Your task to perform on an android device: toggle data saver in the chrome app Image 0: 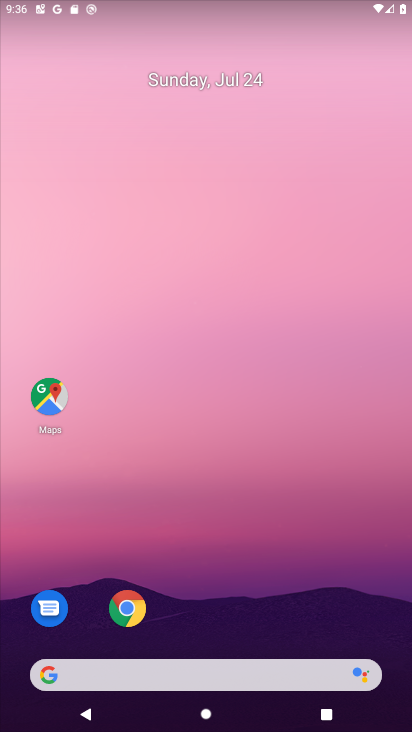
Step 0: click (125, 621)
Your task to perform on an android device: toggle data saver in the chrome app Image 1: 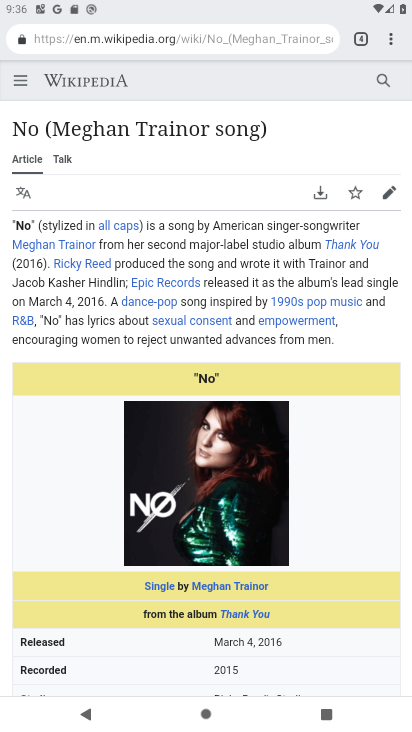
Step 1: click (395, 31)
Your task to perform on an android device: toggle data saver in the chrome app Image 2: 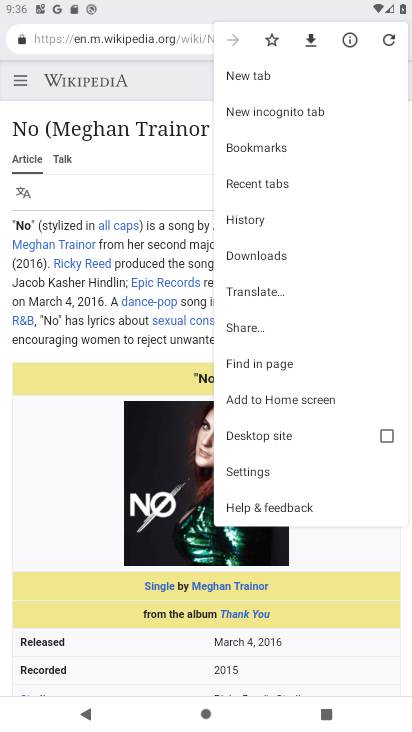
Step 2: click (266, 479)
Your task to perform on an android device: toggle data saver in the chrome app Image 3: 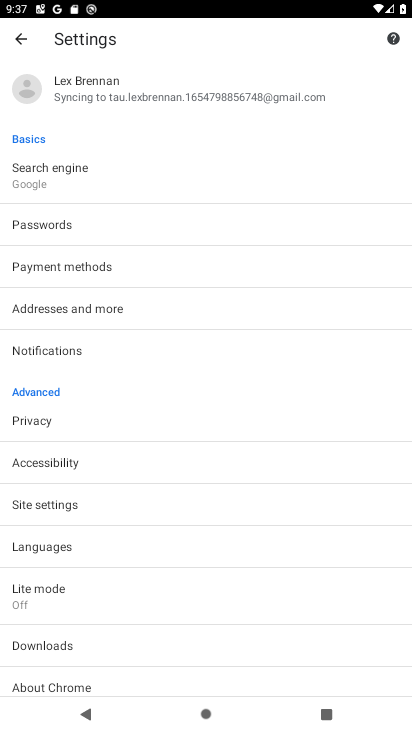
Step 3: click (128, 611)
Your task to perform on an android device: toggle data saver in the chrome app Image 4: 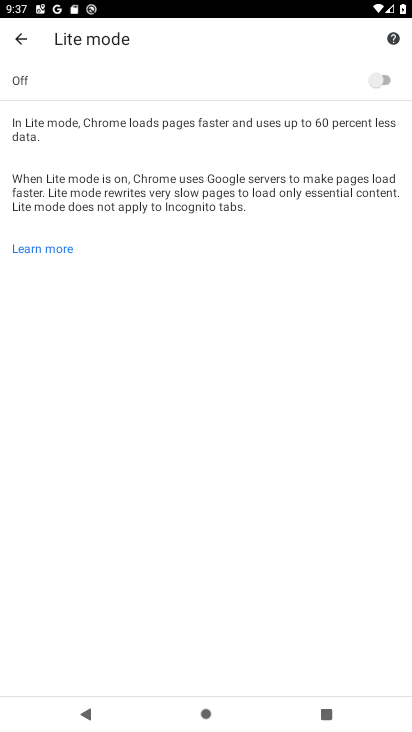
Step 4: click (382, 77)
Your task to perform on an android device: toggle data saver in the chrome app Image 5: 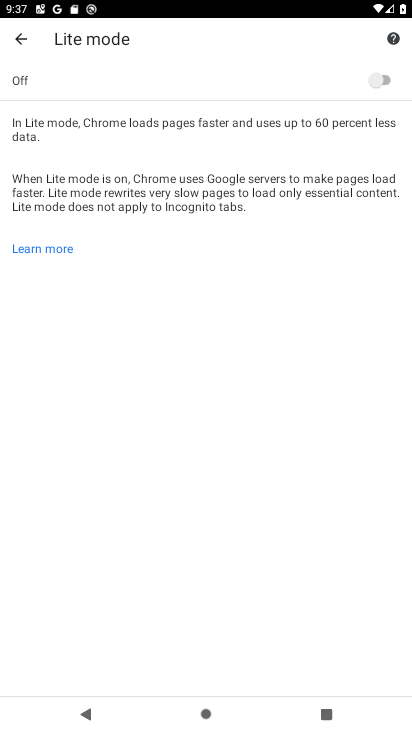
Step 5: click (382, 77)
Your task to perform on an android device: toggle data saver in the chrome app Image 6: 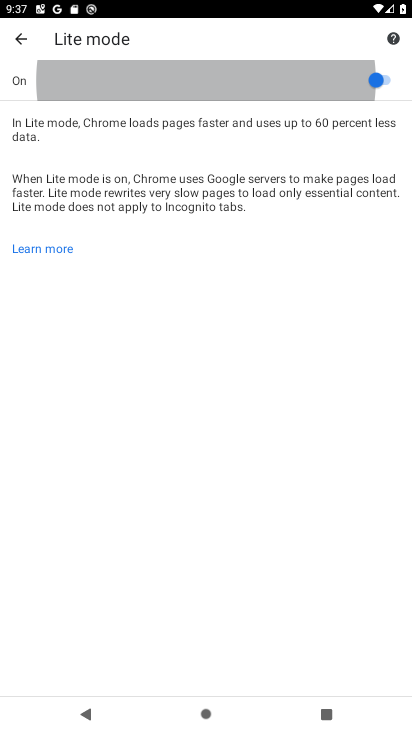
Step 6: click (382, 77)
Your task to perform on an android device: toggle data saver in the chrome app Image 7: 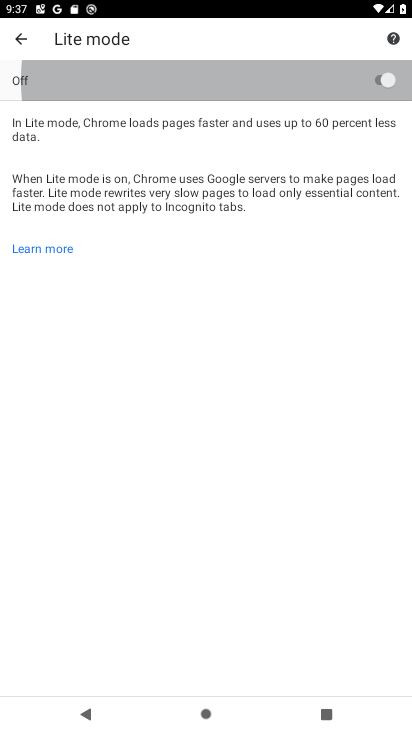
Step 7: click (382, 77)
Your task to perform on an android device: toggle data saver in the chrome app Image 8: 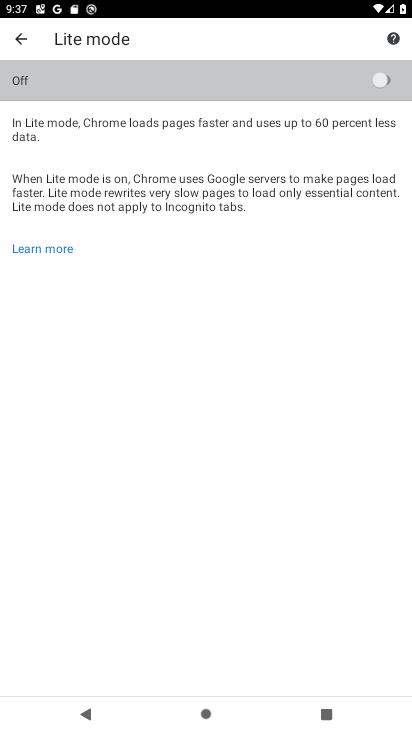
Step 8: click (382, 77)
Your task to perform on an android device: toggle data saver in the chrome app Image 9: 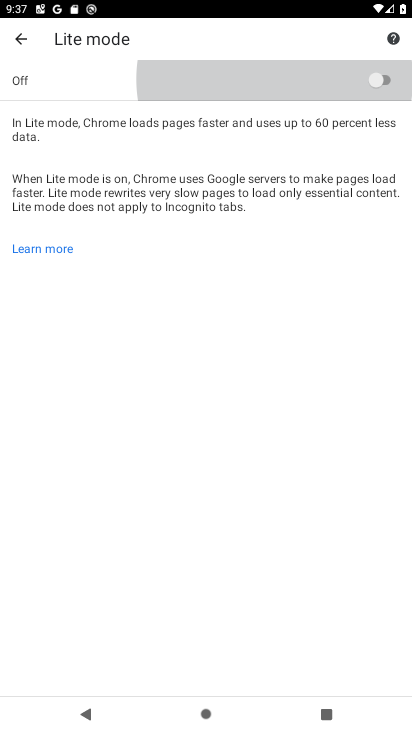
Step 9: click (382, 77)
Your task to perform on an android device: toggle data saver in the chrome app Image 10: 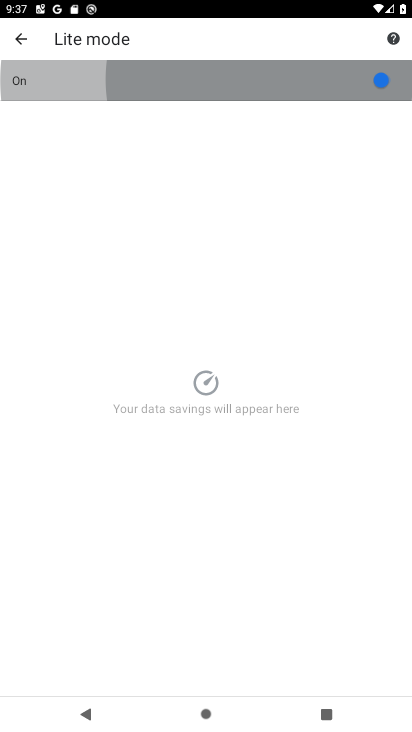
Step 10: click (382, 77)
Your task to perform on an android device: toggle data saver in the chrome app Image 11: 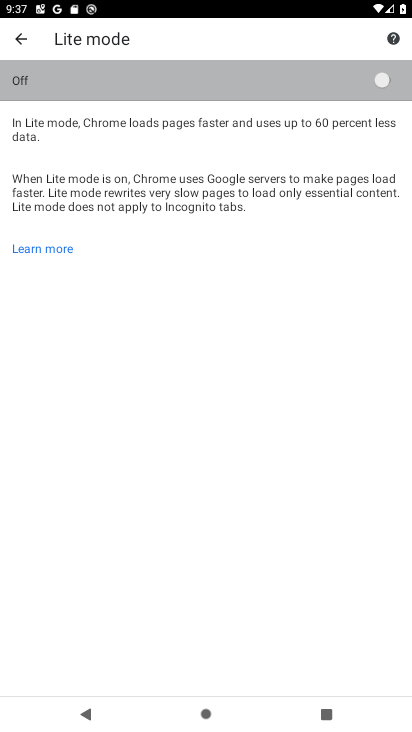
Step 11: click (382, 77)
Your task to perform on an android device: toggle data saver in the chrome app Image 12: 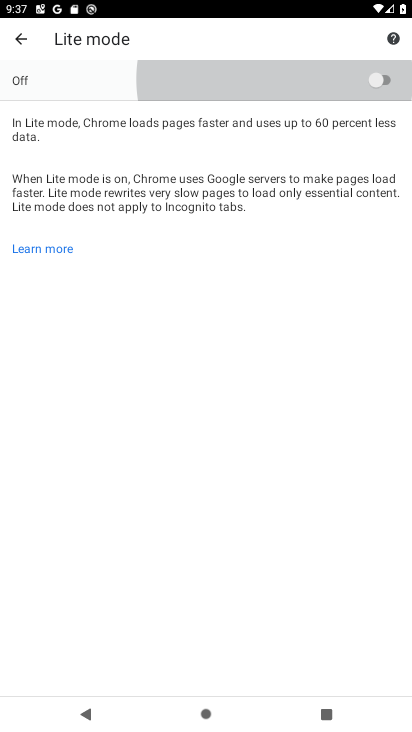
Step 12: click (382, 77)
Your task to perform on an android device: toggle data saver in the chrome app Image 13: 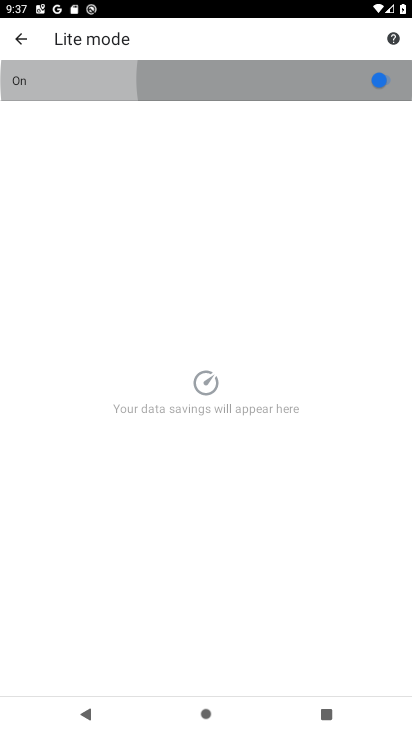
Step 13: click (382, 77)
Your task to perform on an android device: toggle data saver in the chrome app Image 14: 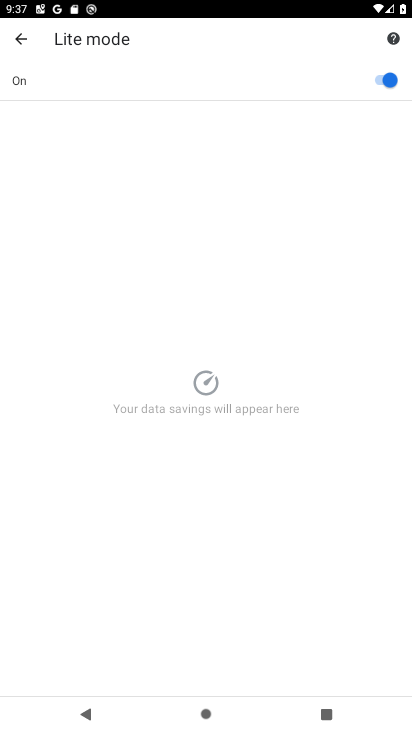
Step 14: click (377, 94)
Your task to perform on an android device: toggle data saver in the chrome app Image 15: 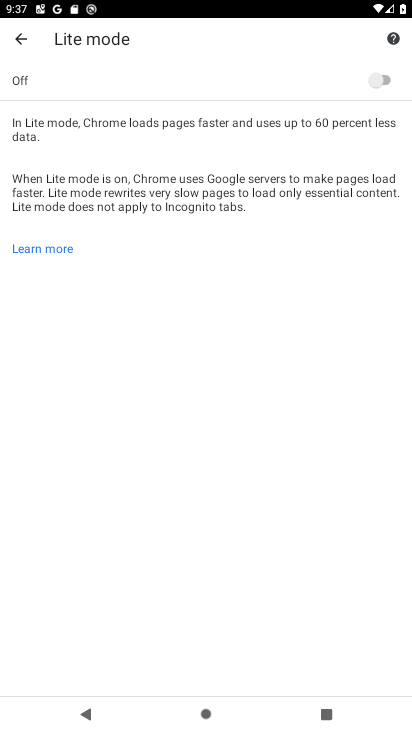
Step 15: task complete